Your task to perform on an android device: Show me popular videos on Youtube Image 0: 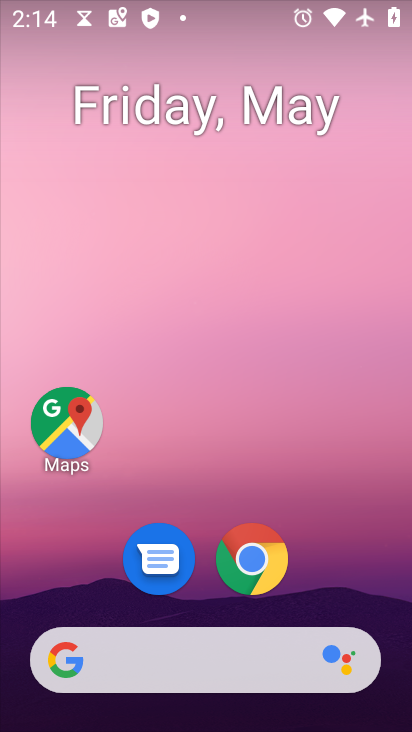
Step 0: drag from (386, 556) to (353, 208)
Your task to perform on an android device: Show me popular videos on Youtube Image 1: 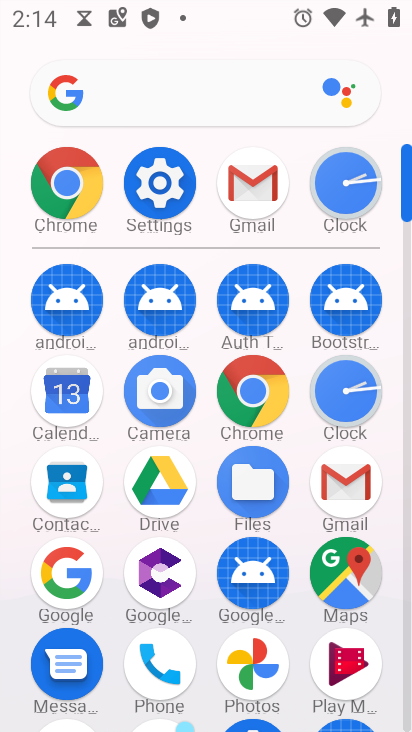
Step 1: drag from (298, 613) to (316, 201)
Your task to perform on an android device: Show me popular videos on Youtube Image 2: 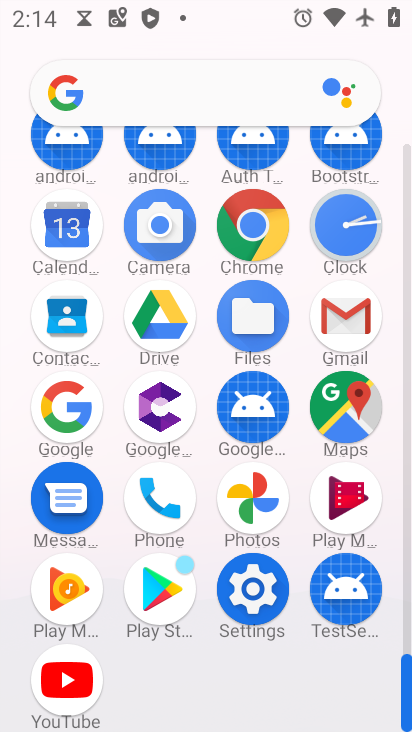
Step 2: click (83, 672)
Your task to perform on an android device: Show me popular videos on Youtube Image 3: 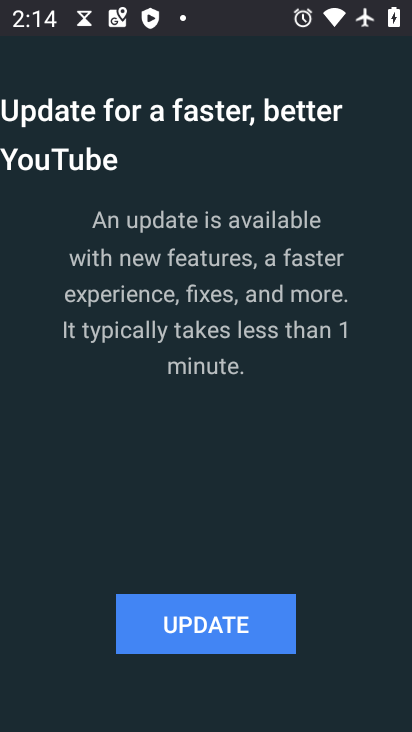
Step 3: click (164, 643)
Your task to perform on an android device: Show me popular videos on Youtube Image 4: 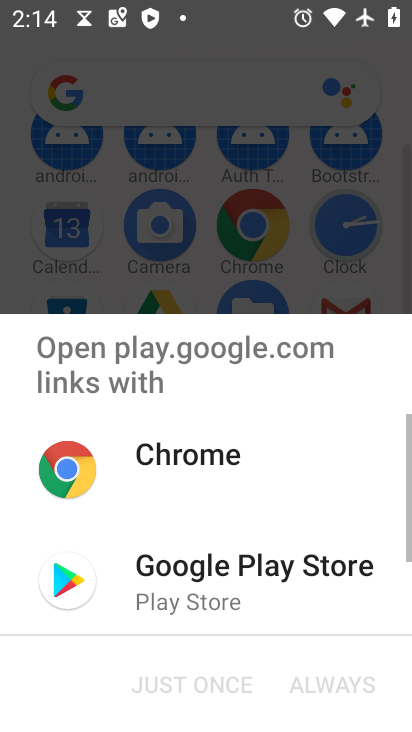
Step 4: click (164, 579)
Your task to perform on an android device: Show me popular videos on Youtube Image 5: 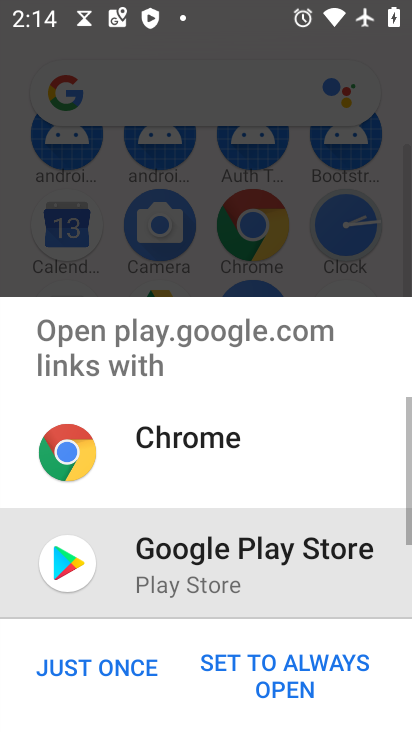
Step 5: click (212, 682)
Your task to perform on an android device: Show me popular videos on Youtube Image 6: 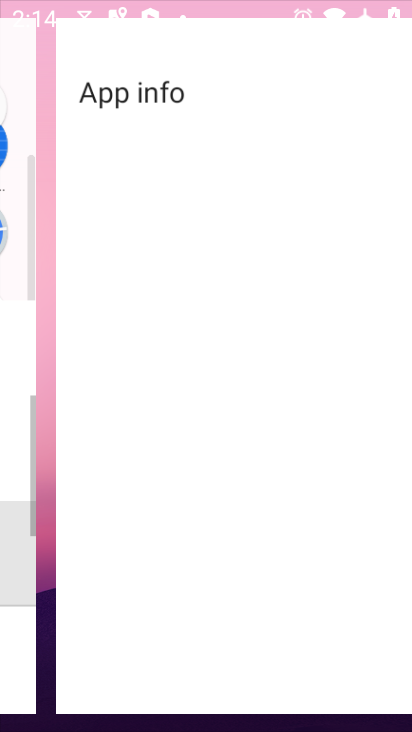
Step 6: click (123, 683)
Your task to perform on an android device: Show me popular videos on Youtube Image 7: 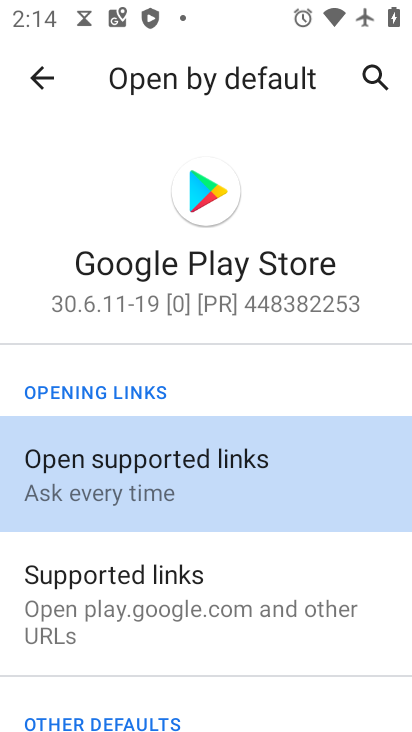
Step 7: press back button
Your task to perform on an android device: Show me popular videos on Youtube Image 8: 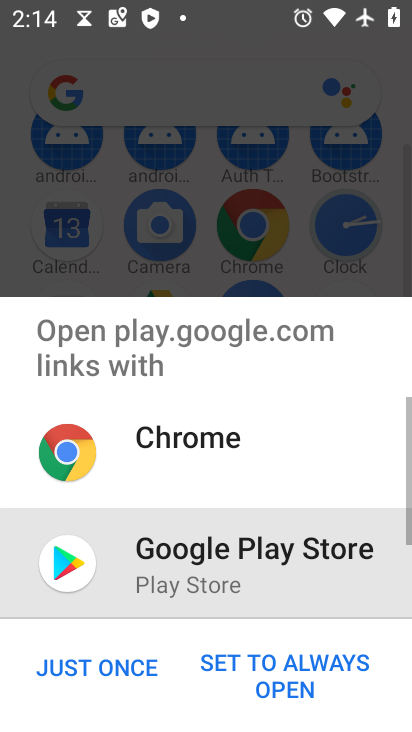
Step 8: click (126, 657)
Your task to perform on an android device: Show me popular videos on Youtube Image 9: 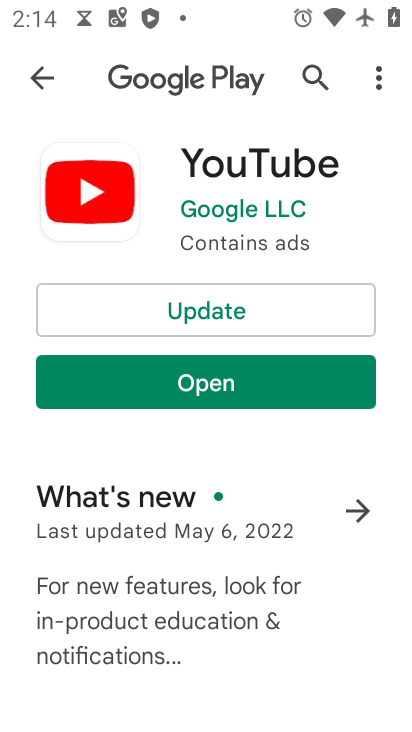
Step 9: click (226, 316)
Your task to perform on an android device: Show me popular videos on Youtube Image 10: 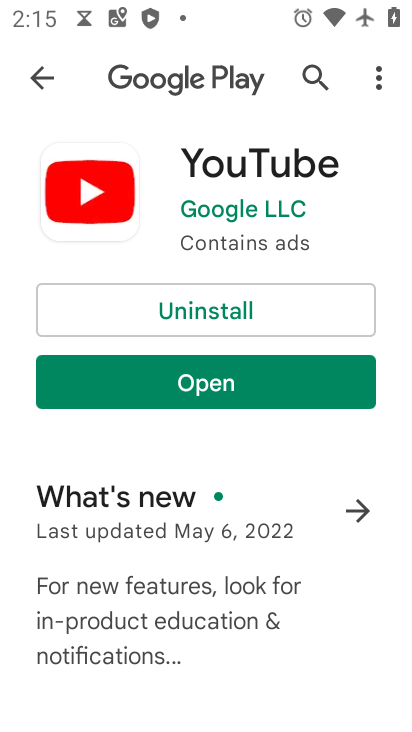
Step 10: click (243, 399)
Your task to perform on an android device: Show me popular videos on Youtube Image 11: 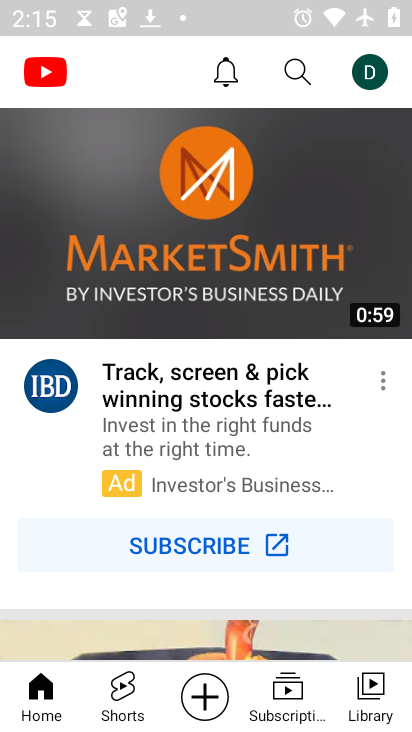
Step 11: drag from (369, 692) to (400, 613)
Your task to perform on an android device: Show me popular videos on Youtube Image 12: 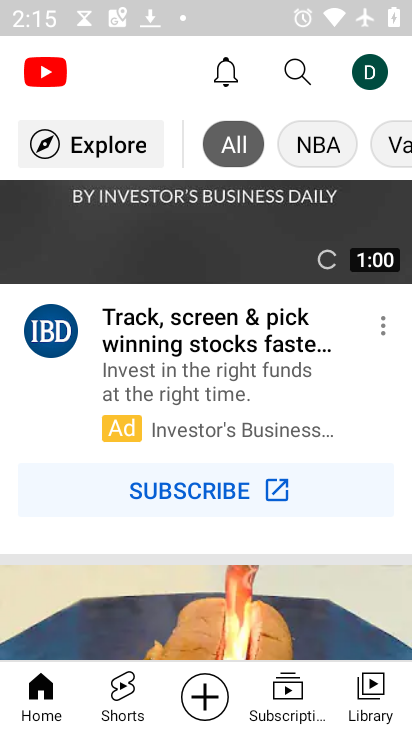
Step 12: click (368, 70)
Your task to perform on an android device: Show me popular videos on Youtube Image 13: 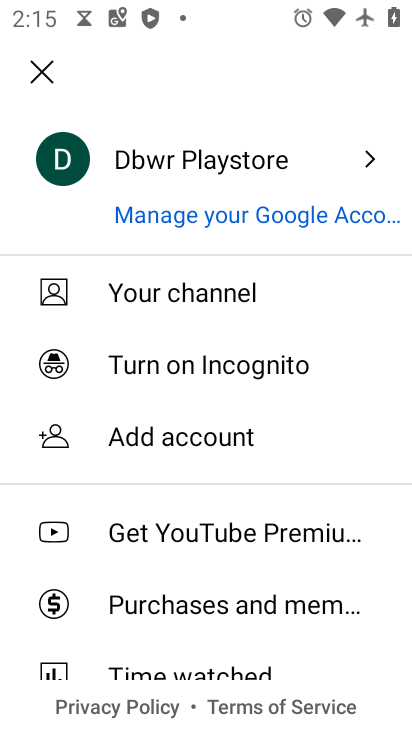
Step 13: task complete